Your task to perform on an android device: Open Amazon Image 0: 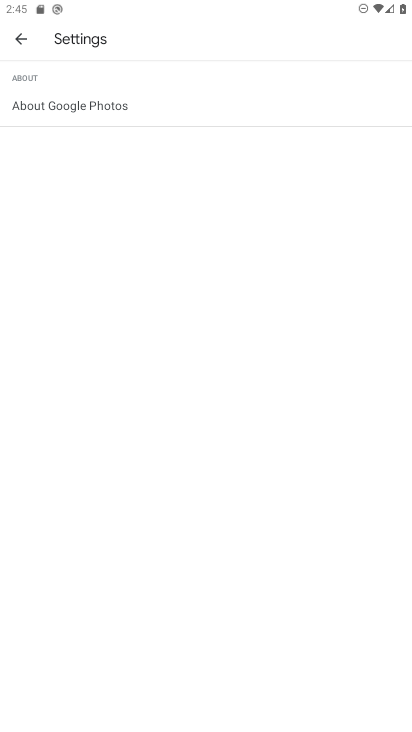
Step 0: press home button
Your task to perform on an android device: Open Amazon Image 1: 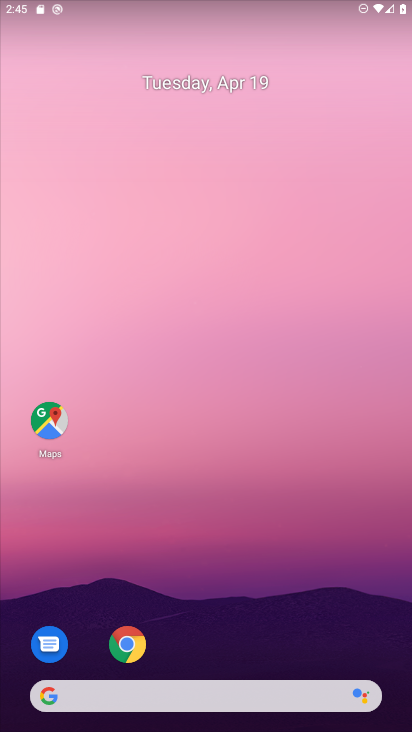
Step 1: click (133, 640)
Your task to perform on an android device: Open Amazon Image 2: 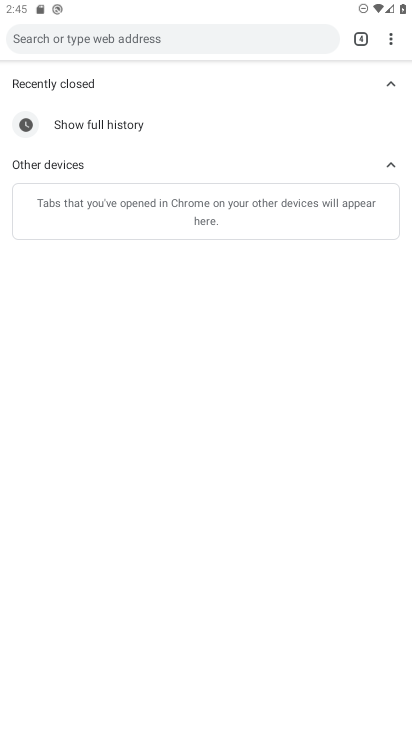
Step 2: press back button
Your task to perform on an android device: Open Amazon Image 3: 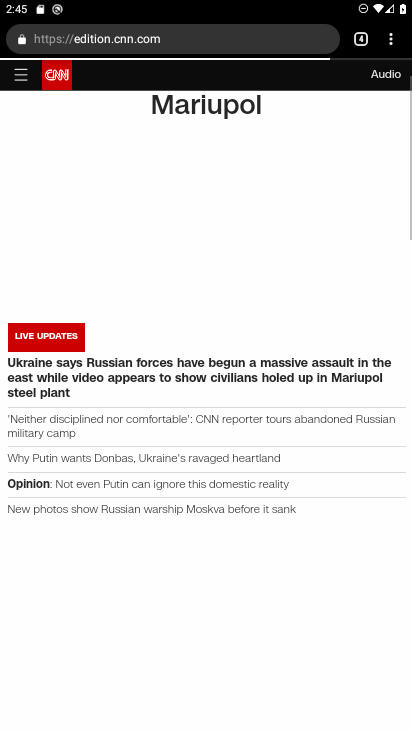
Step 3: click (362, 40)
Your task to perform on an android device: Open Amazon Image 4: 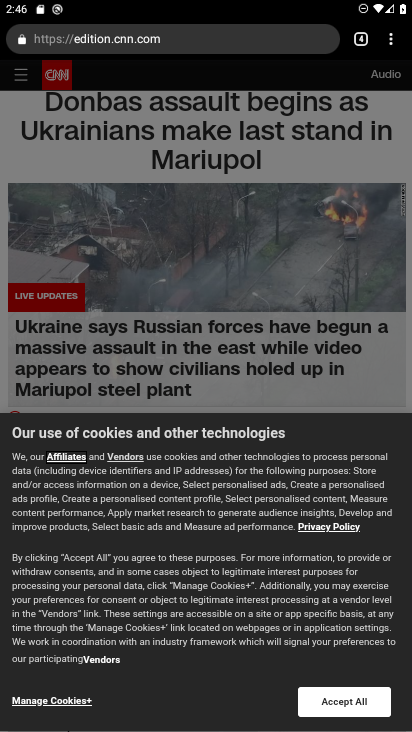
Step 4: click (362, 39)
Your task to perform on an android device: Open Amazon Image 5: 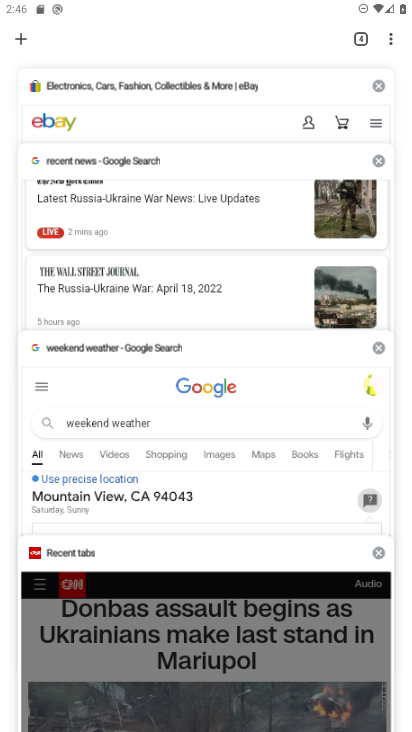
Step 5: click (19, 36)
Your task to perform on an android device: Open Amazon Image 6: 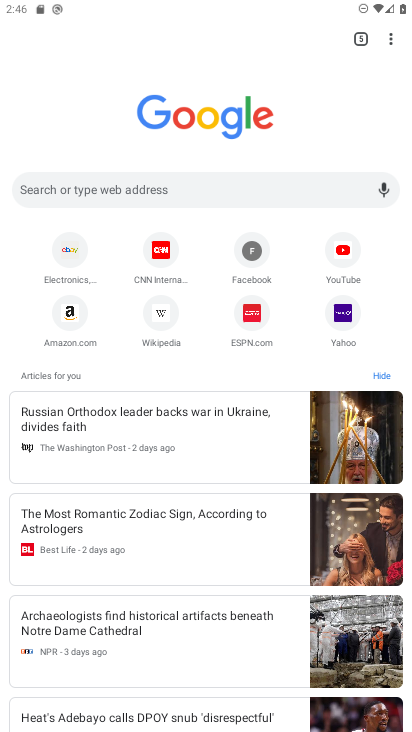
Step 6: click (67, 314)
Your task to perform on an android device: Open Amazon Image 7: 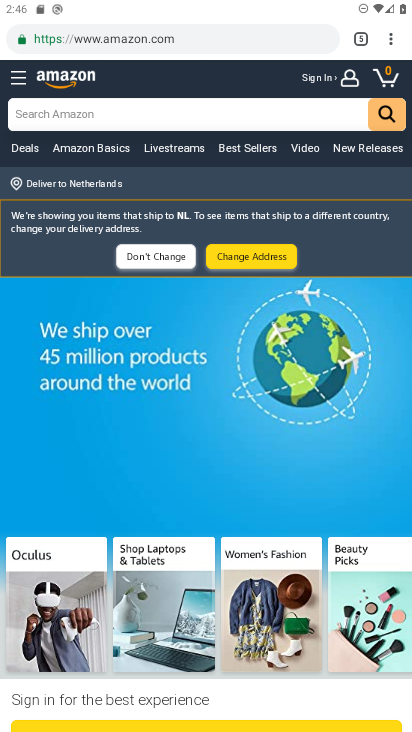
Step 7: task complete